Your task to perform on an android device: Go to network settings Image 0: 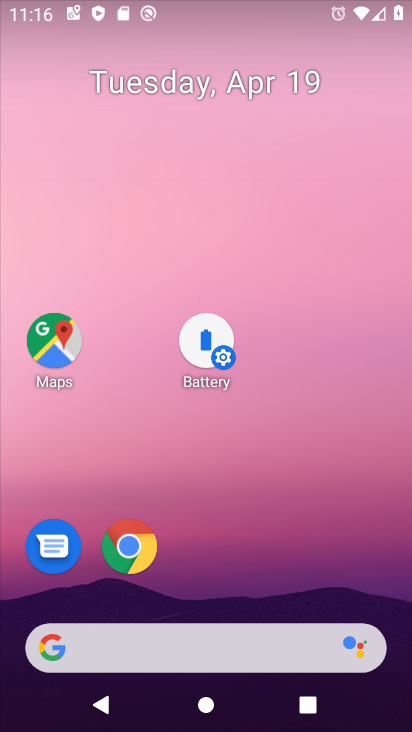
Step 0: drag from (305, 264) to (344, 84)
Your task to perform on an android device: Go to network settings Image 1: 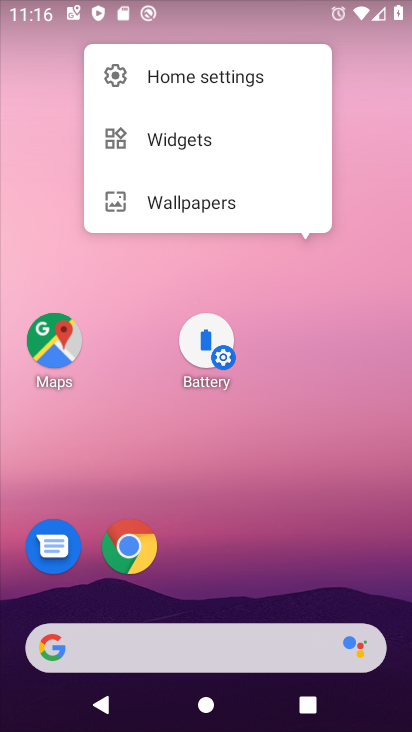
Step 1: click (311, 465)
Your task to perform on an android device: Go to network settings Image 2: 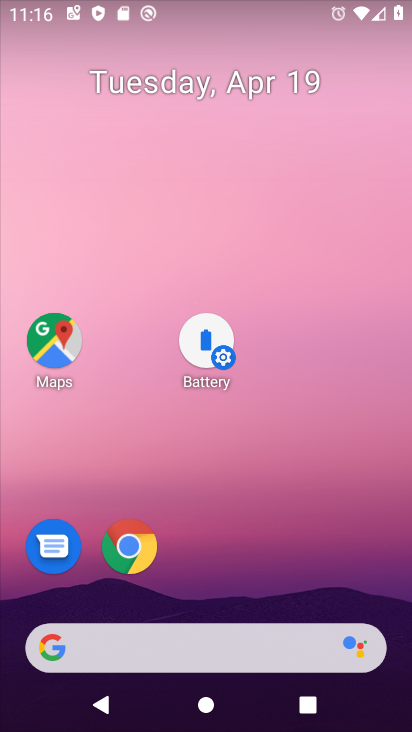
Step 2: drag from (311, 465) to (356, 18)
Your task to perform on an android device: Go to network settings Image 3: 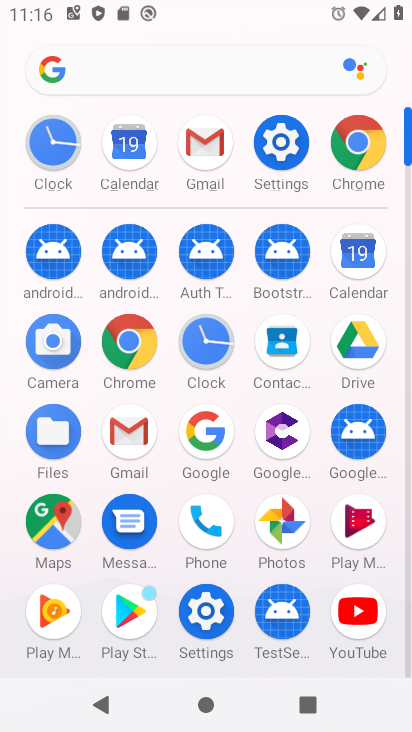
Step 3: click (288, 144)
Your task to perform on an android device: Go to network settings Image 4: 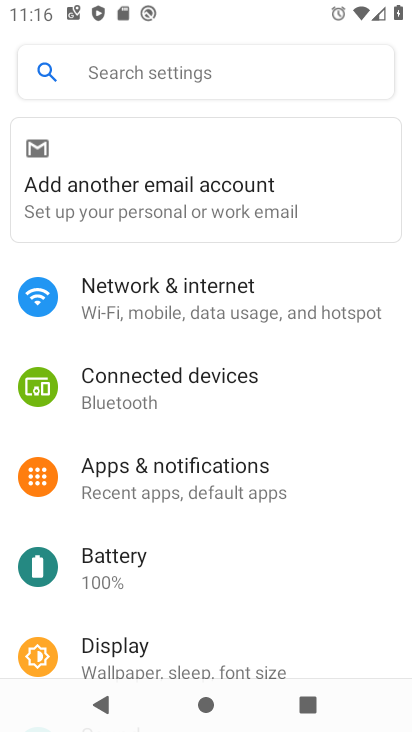
Step 4: click (120, 391)
Your task to perform on an android device: Go to network settings Image 5: 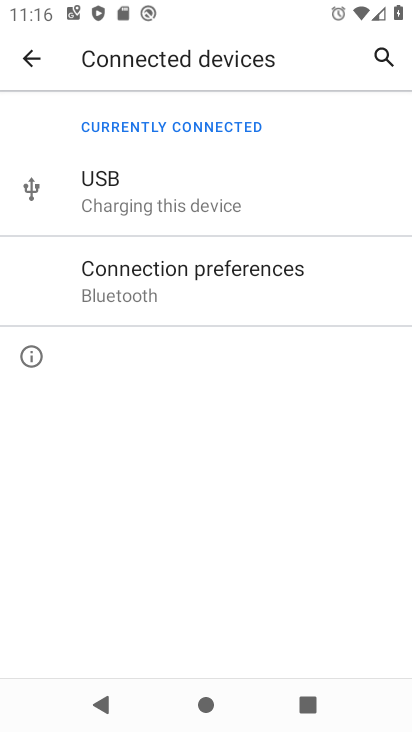
Step 5: press home button
Your task to perform on an android device: Go to network settings Image 6: 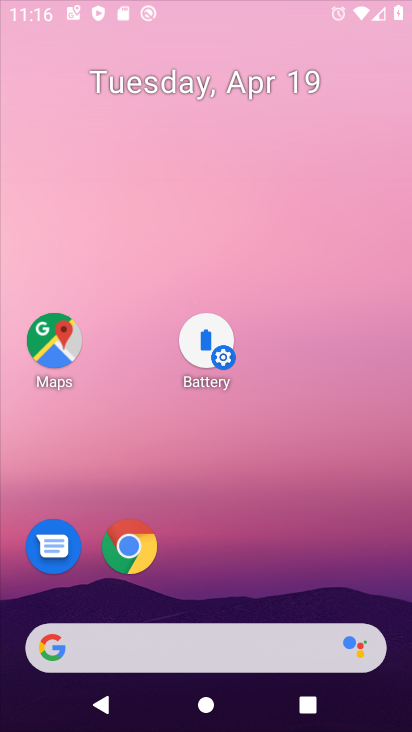
Step 6: drag from (228, 575) to (395, 52)
Your task to perform on an android device: Go to network settings Image 7: 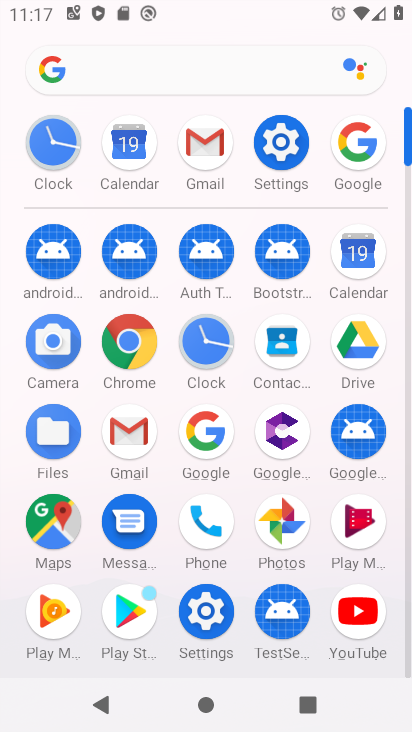
Step 7: click (268, 135)
Your task to perform on an android device: Go to network settings Image 8: 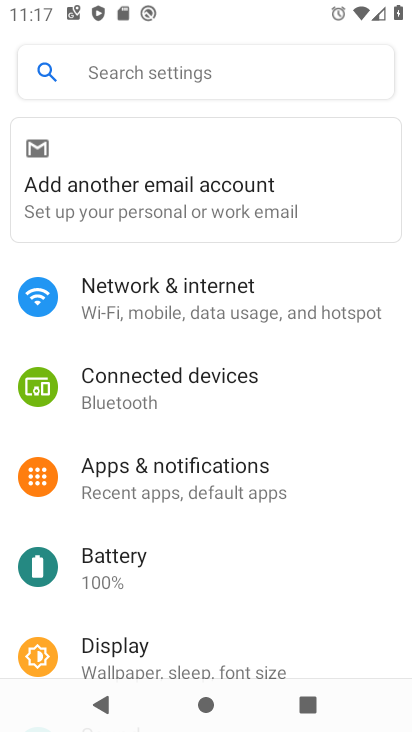
Step 8: click (240, 286)
Your task to perform on an android device: Go to network settings Image 9: 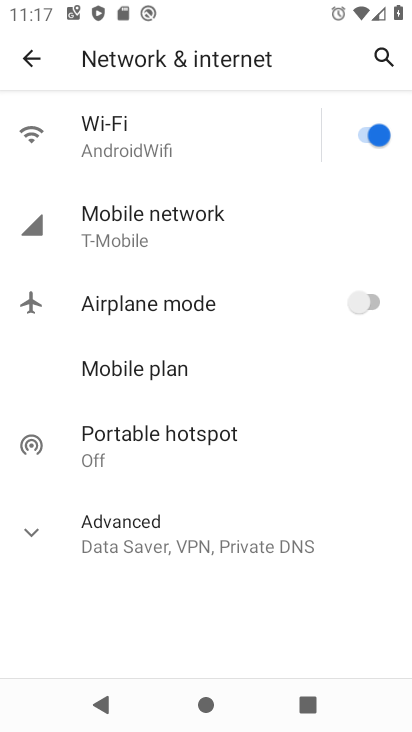
Step 9: task complete